Your task to perform on an android device: uninstall "WhatsApp Messenger" Image 0: 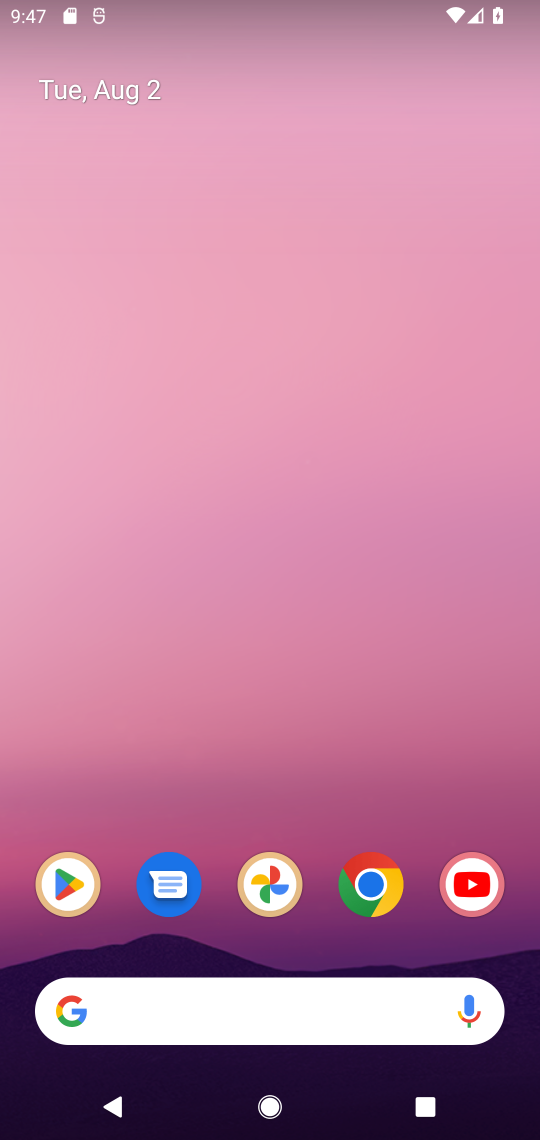
Step 0: click (72, 868)
Your task to perform on an android device: uninstall "WhatsApp Messenger" Image 1: 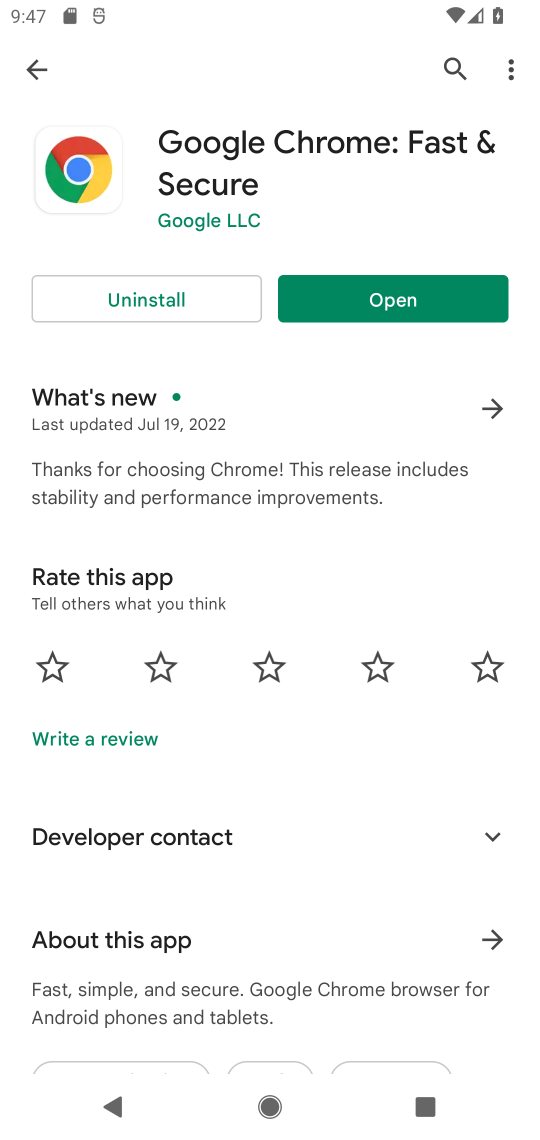
Step 1: click (41, 58)
Your task to perform on an android device: uninstall "WhatsApp Messenger" Image 2: 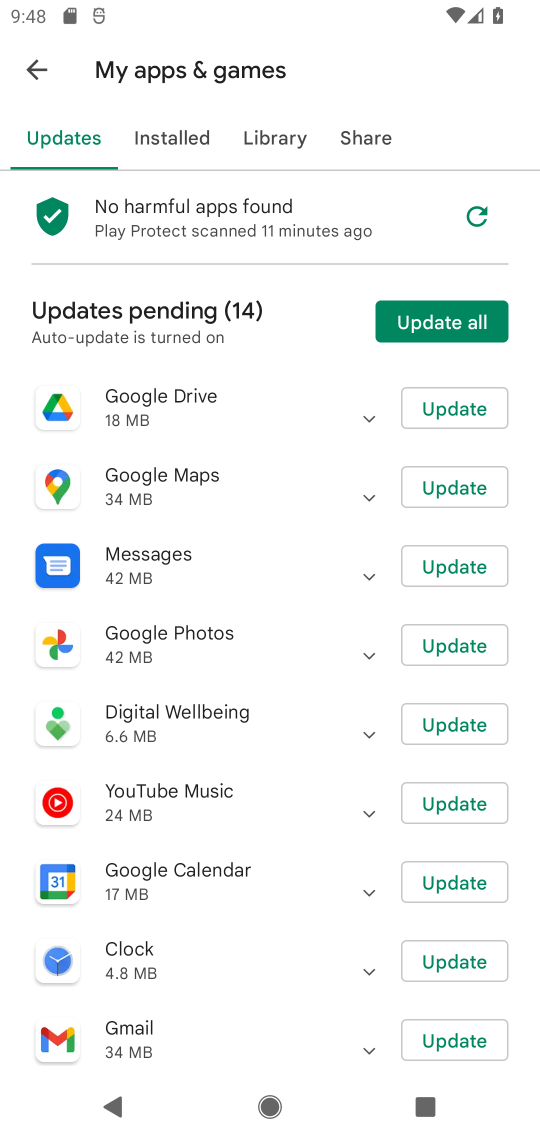
Step 2: click (23, 55)
Your task to perform on an android device: uninstall "WhatsApp Messenger" Image 3: 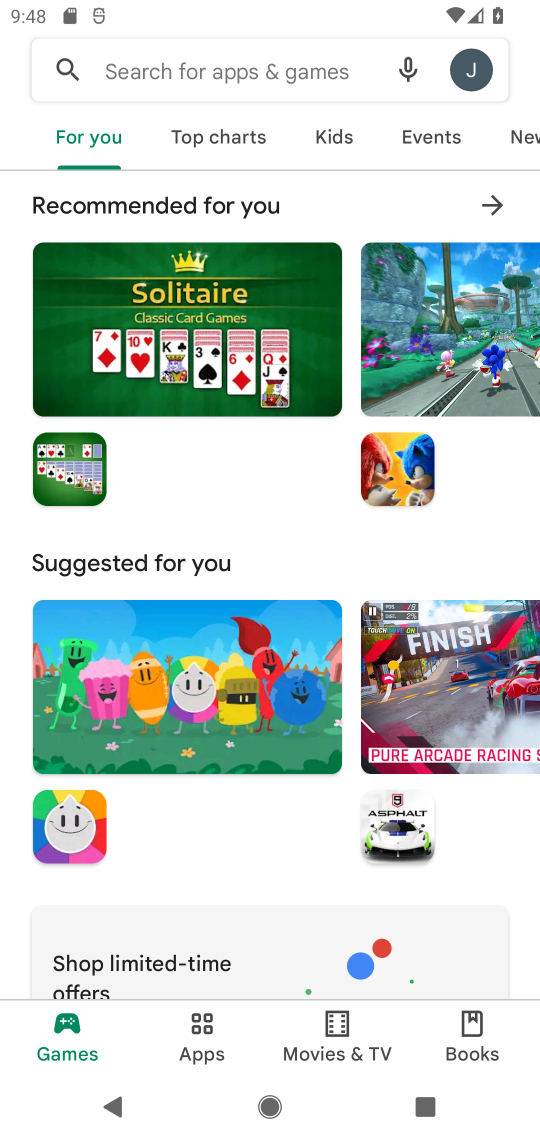
Step 3: click (169, 61)
Your task to perform on an android device: uninstall "WhatsApp Messenger" Image 4: 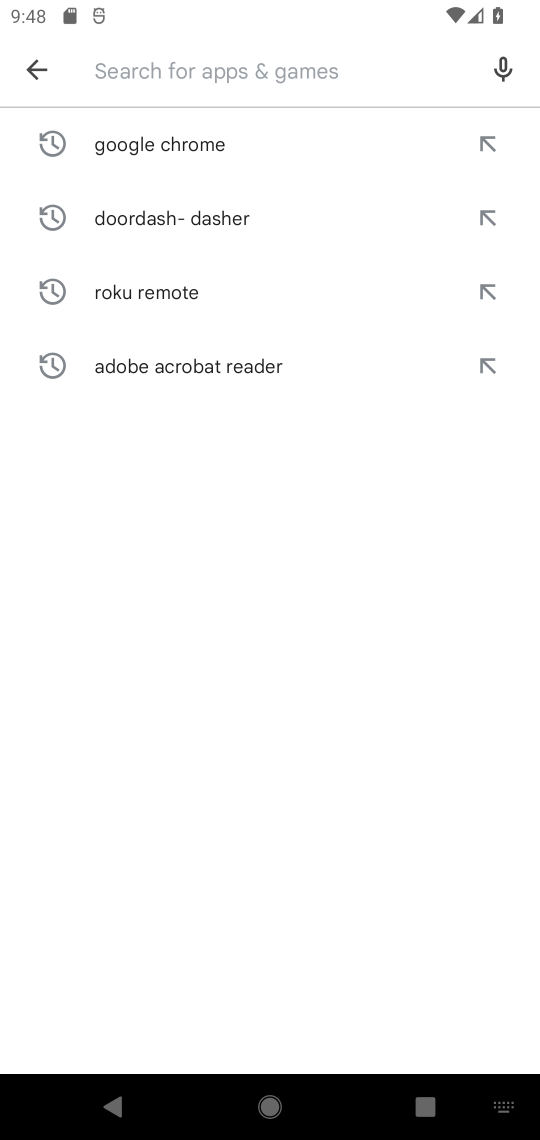
Step 4: type "whatsapp messenger"
Your task to perform on an android device: uninstall "WhatsApp Messenger" Image 5: 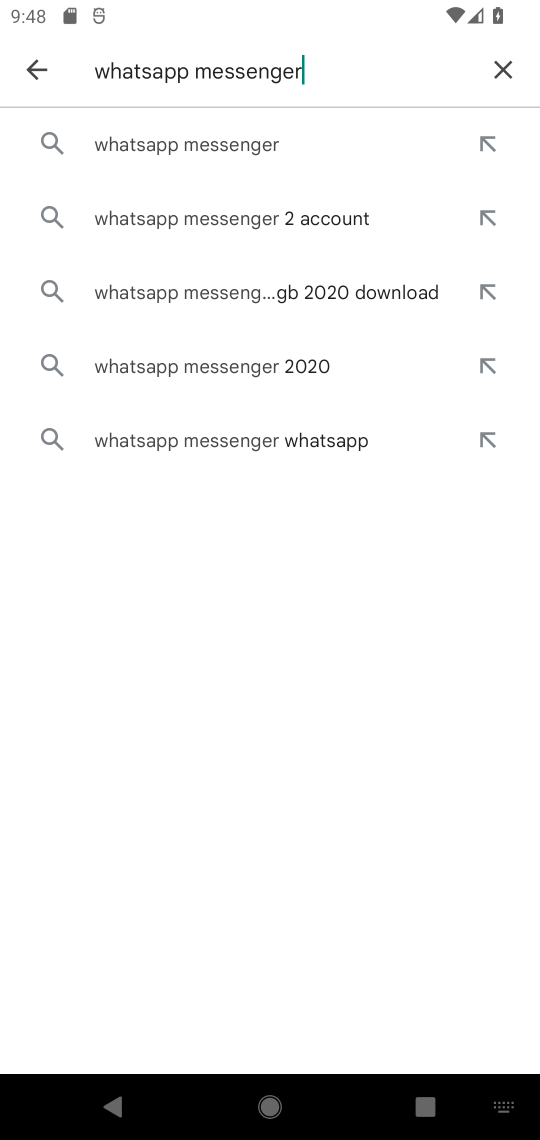
Step 5: click (164, 160)
Your task to perform on an android device: uninstall "WhatsApp Messenger" Image 6: 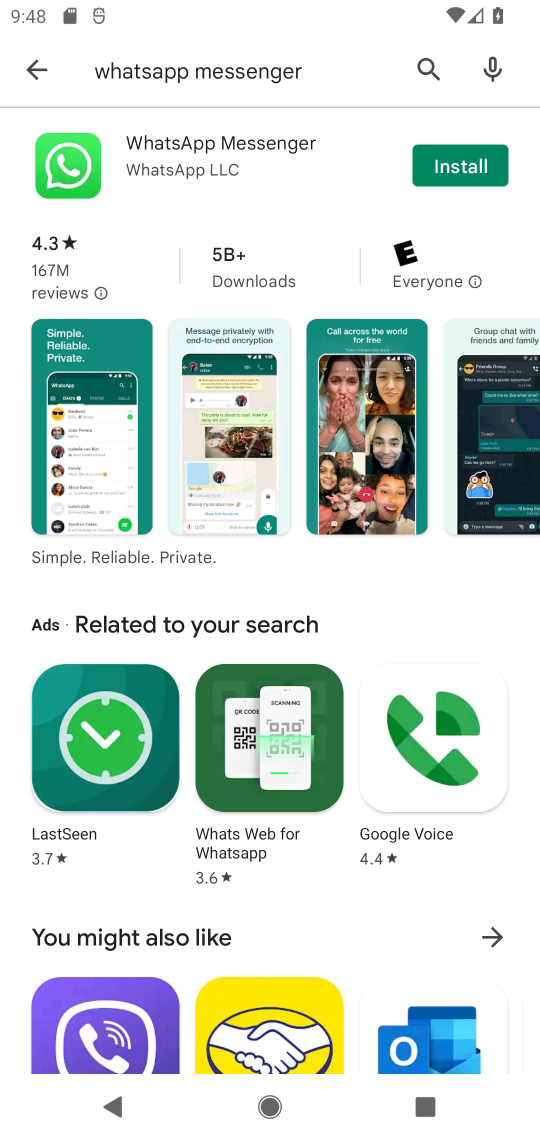
Step 6: task complete